Your task to perform on an android device: Set the phone to "Do not disturb". Image 0: 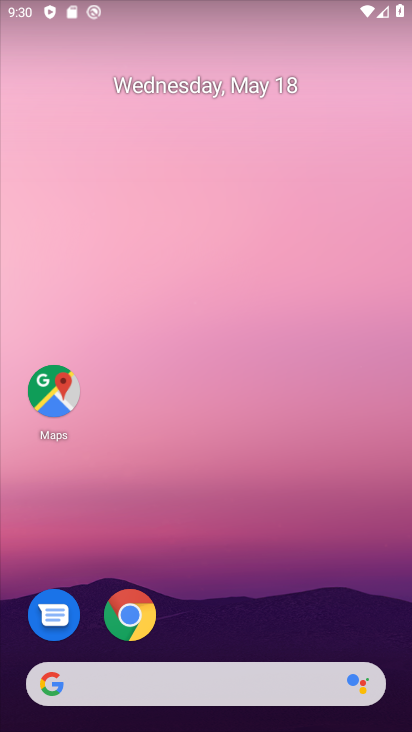
Step 0: drag from (254, 614) to (303, 131)
Your task to perform on an android device: Set the phone to "Do not disturb". Image 1: 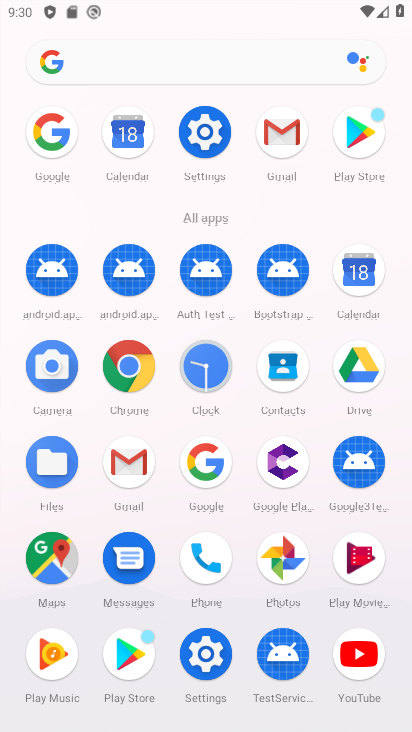
Step 1: click (209, 133)
Your task to perform on an android device: Set the phone to "Do not disturb". Image 2: 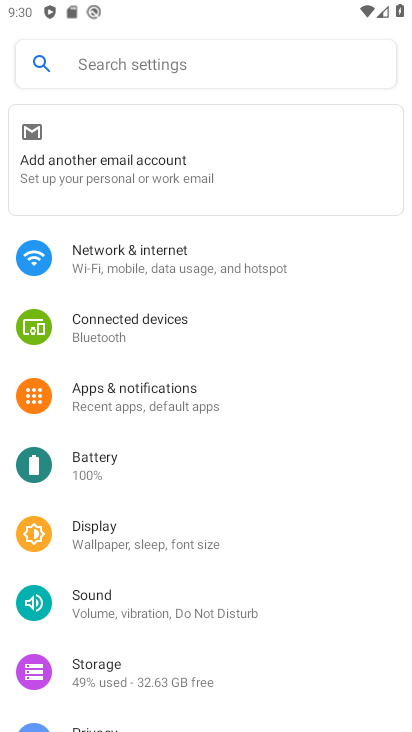
Step 2: click (193, 622)
Your task to perform on an android device: Set the phone to "Do not disturb". Image 3: 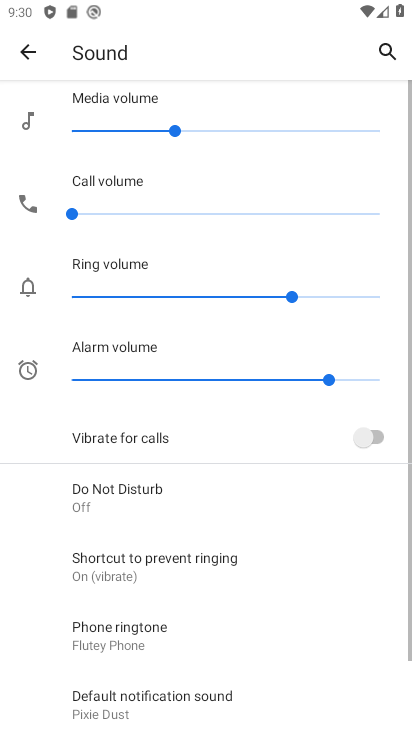
Step 3: click (142, 503)
Your task to perform on an android device: Set the phone to "Do not disturb". Image 4: 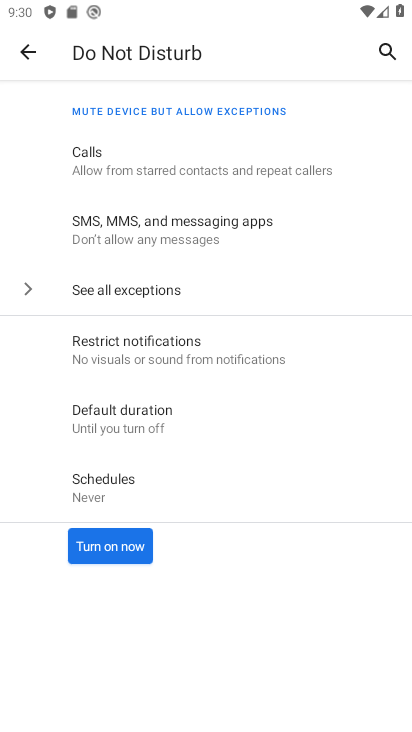
Step 4: click (120, 548)
Your task to perform on an android device: Set the phone to "Do not disturb". Image 5: 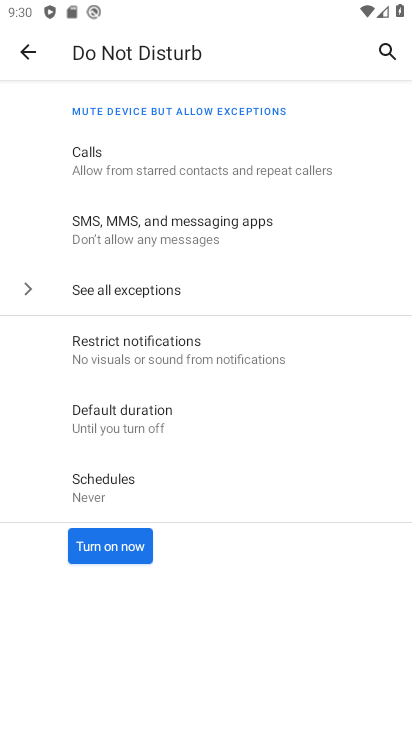
Step 5: click (108, 548)
Your task to perform on an android device: Set the phone to "Do not disturb". Image 6: 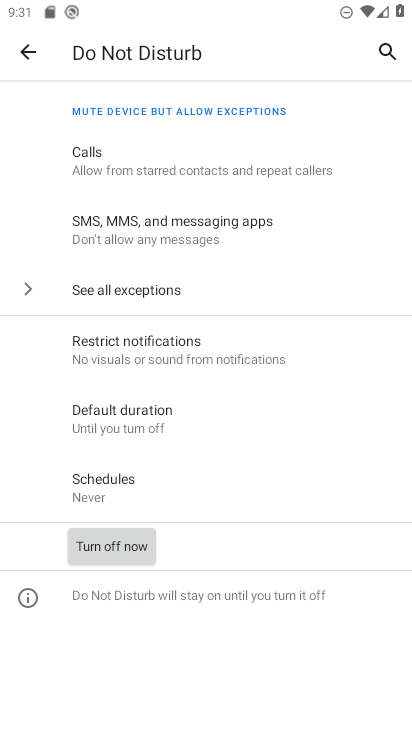
Step 6: task complete